Your task to perform on an android device: change the upload size in google photos Image 0: 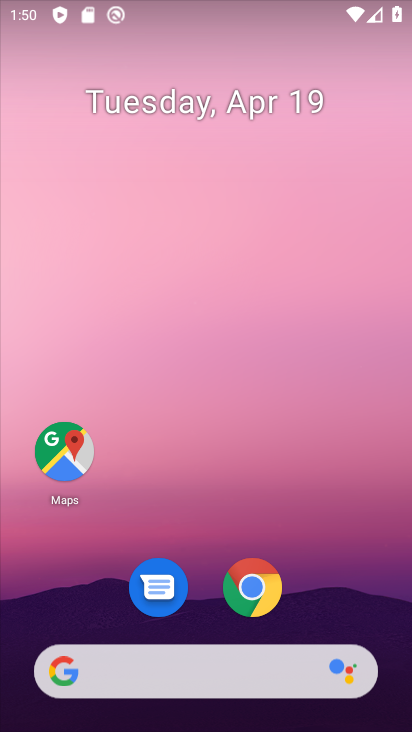
Step 0: click (182, 98)
Your task to perform on an android device: change the upload size in google photos Image 1: 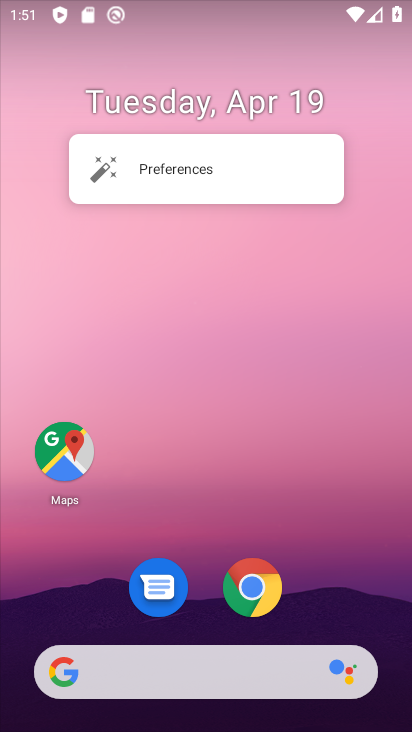
Step 1: drag from (194, 453) to (187, 206)
Your task to perform on an android device: change the upload size in google photos Image 2: 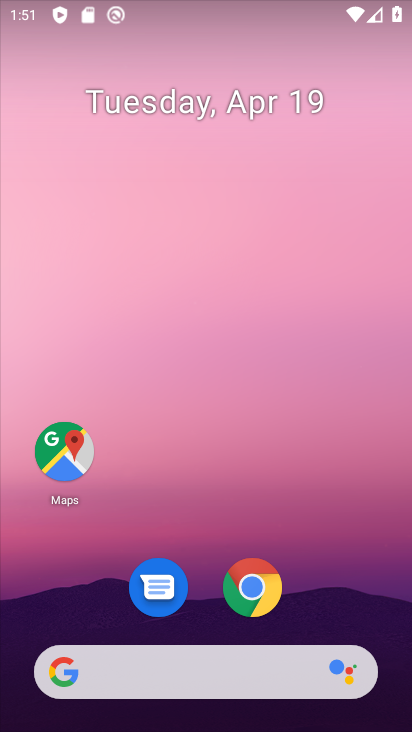
Step 2: drag from (180, 428) to (174, 134)
Your task to perform on an android device: change the upload size in google photos Image 3: 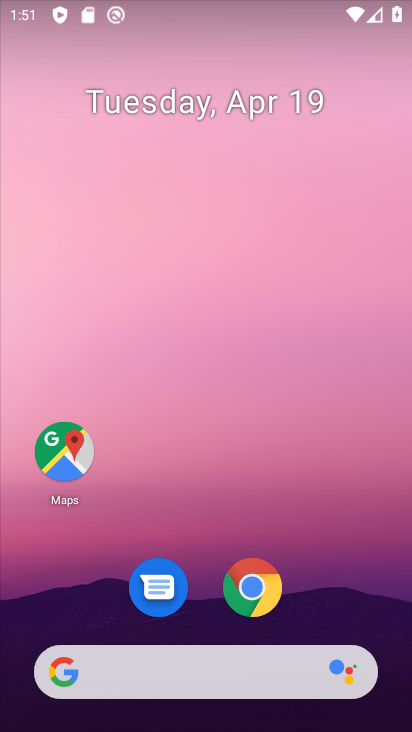
Step 3: drag from (301, 556) to (300, 117)
Your task to perform on an android device: change the upload size in google photos Image 4: 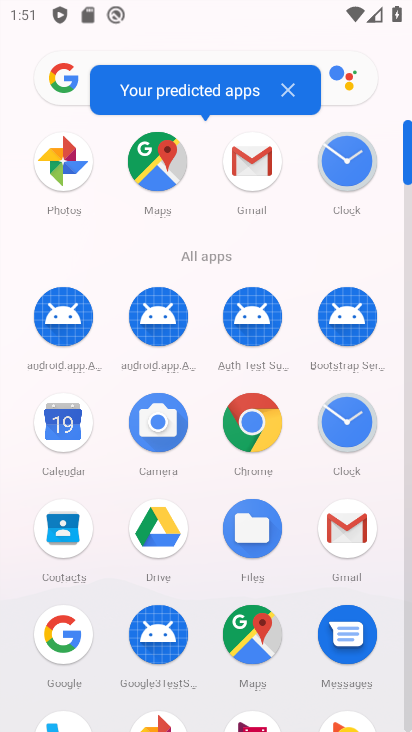
Step 4: click (61, 181)
Your task to perform on an android device: change the upload size in google photos Image 5: 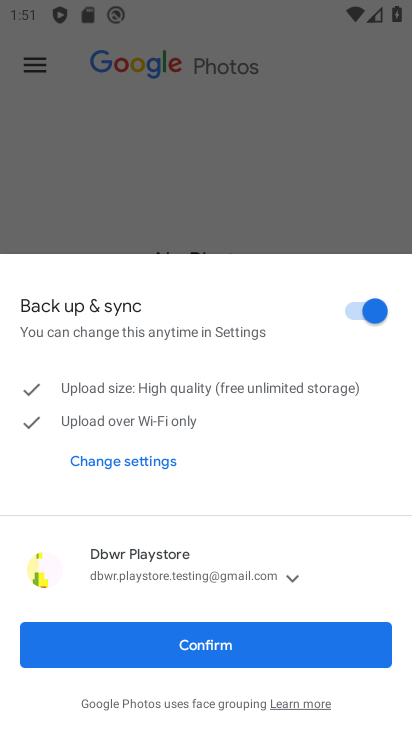
Step 5: click (233, 656)
Your task to perform on an android device: change the upload size in google photos Image 6: 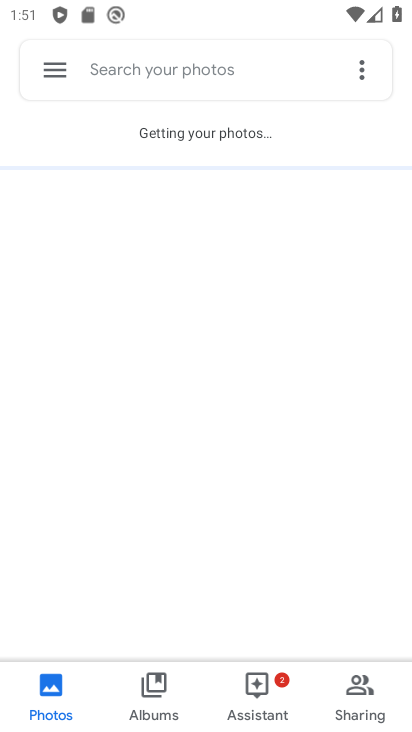
Step 6: click (61, 74)
Your task to perform on an android device: change the upload size in google photos Image 7: 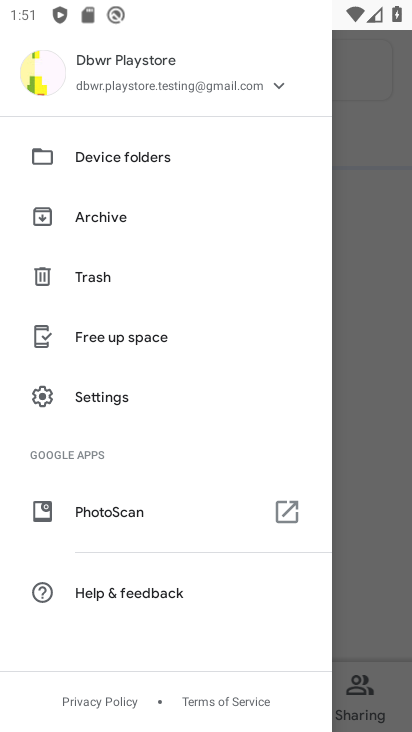
Step 7: click (103, 392)
Your task to perform on an android device: change the upload size in google photos Image 8: 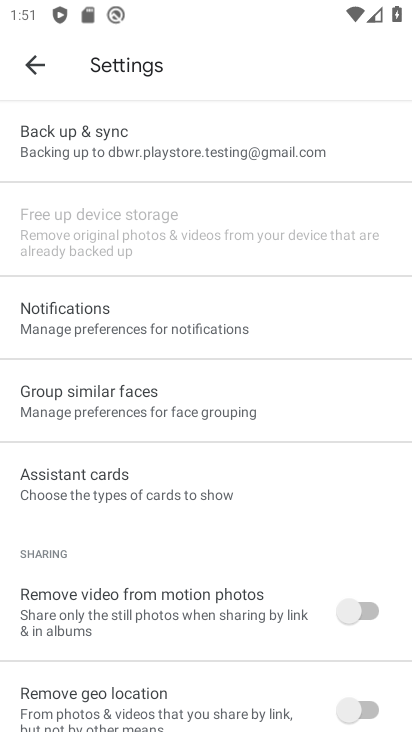
Step 8: drag from (156, 572) to (165, 321)
Your task to perform on an android device: change the upload size in google photos Image 9: 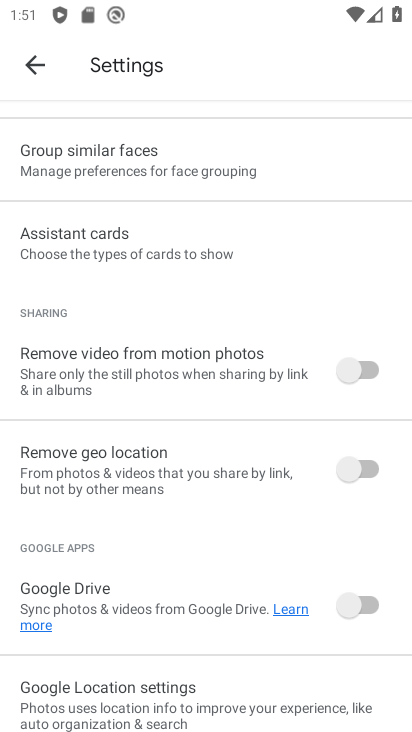
Step 9: drag from (150, 214) to (172, 579)
Your task to perform on an android device: change the upload size in google photos Image 10: 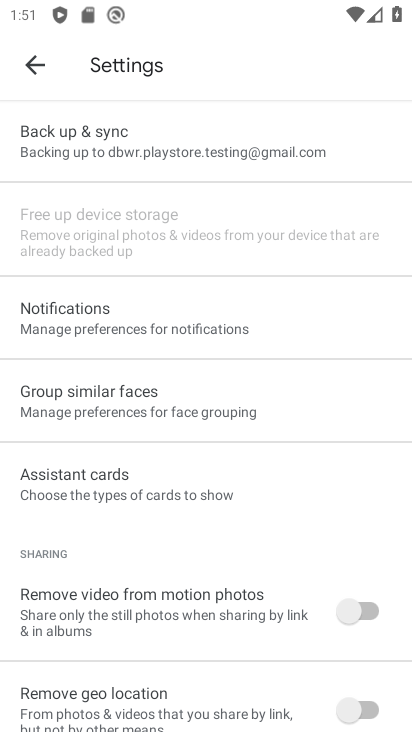
Step 10: click (166, 166)
Your task to perform on an android device: change the upload size in google photos Image 11: 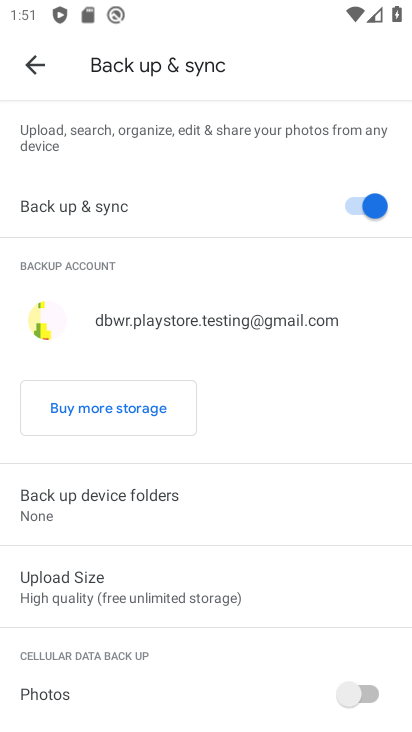
Step 11: click (109, 140)
Your task to perform on an android device: change the upload size in google photos Image 12: 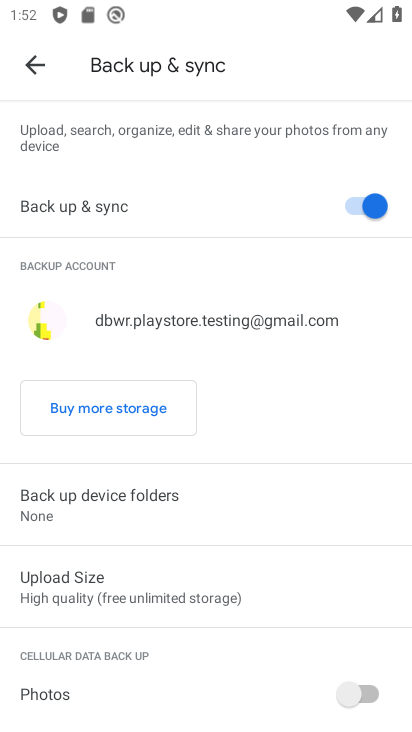
Step 12: click (141, 603)
Your task to perform on an android device: change the upload size in google photos Image 13: 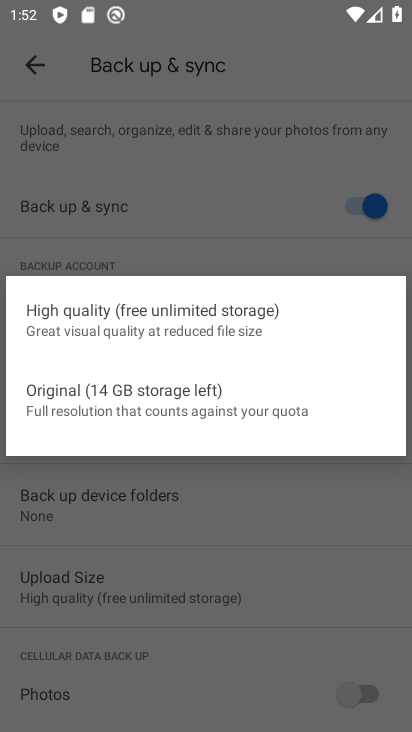
Step 13: click (76, 421)
Your task to perform on an android device: change the upload size in google photos Image 14: 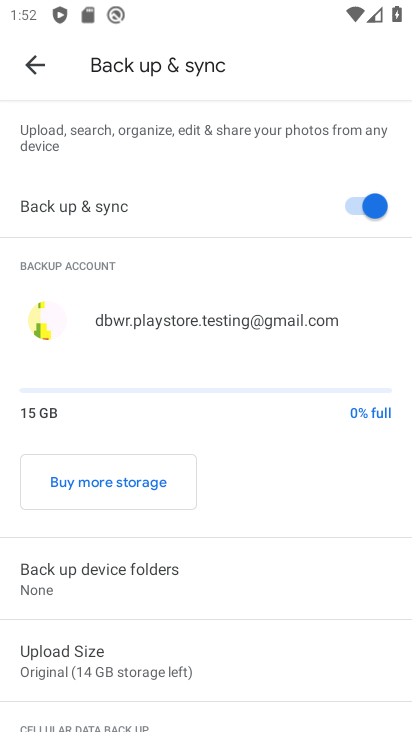
Step 14: task complete